Your task to perform on an android device: set default search engine in the chrome app Image 0: 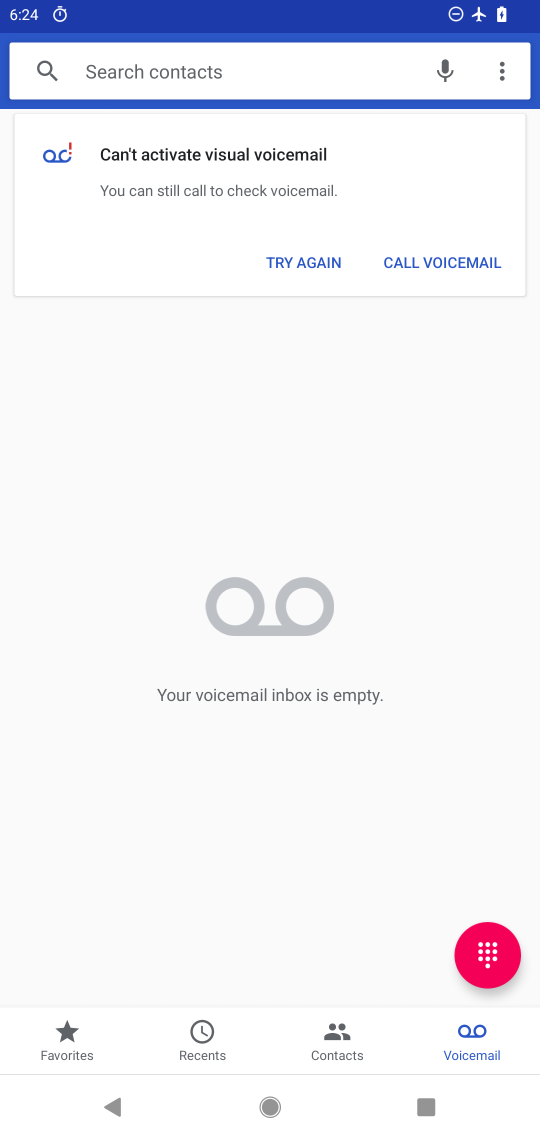
Step 0: press home button
Your task to perform on an android device: set default search engine in the chrome app Image 1: 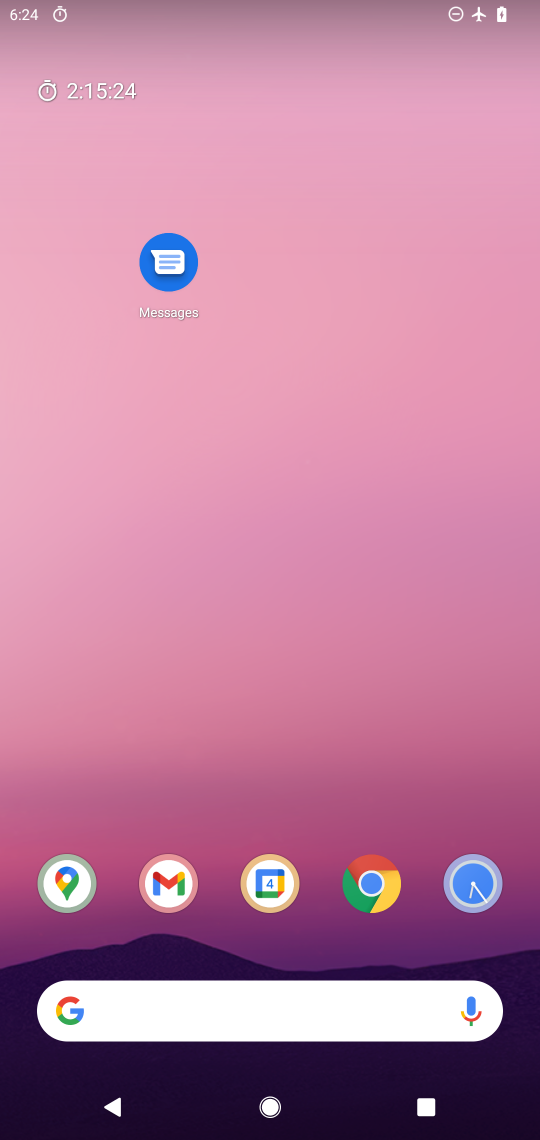
Step 1: click (364, 893)
Your task to perform on an android device: set default search engine in the chrome app Image 2: 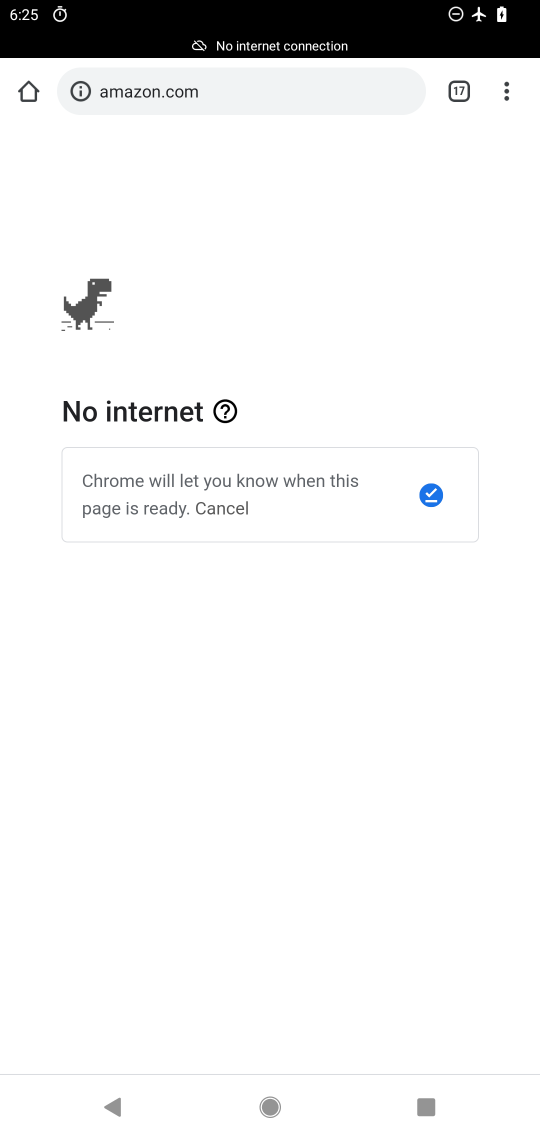
Step 2: click (505, 103)
Your task to perform on an android device: set default search engine in the chrome app Image 3: 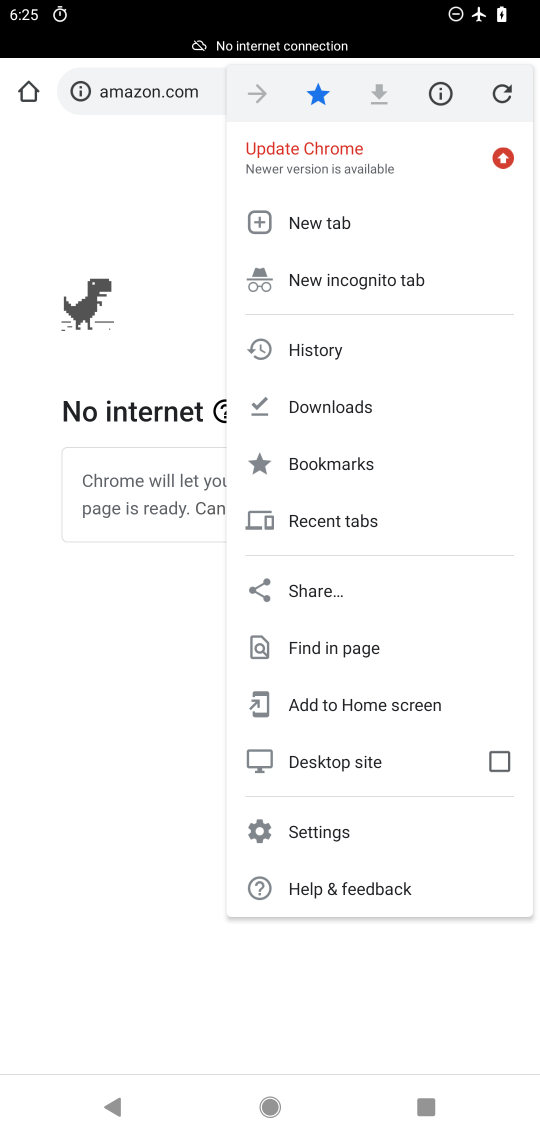
Step 3: click (315, 827)
Your task to perform on an android device: set default search engine in the chrome app Image 4: 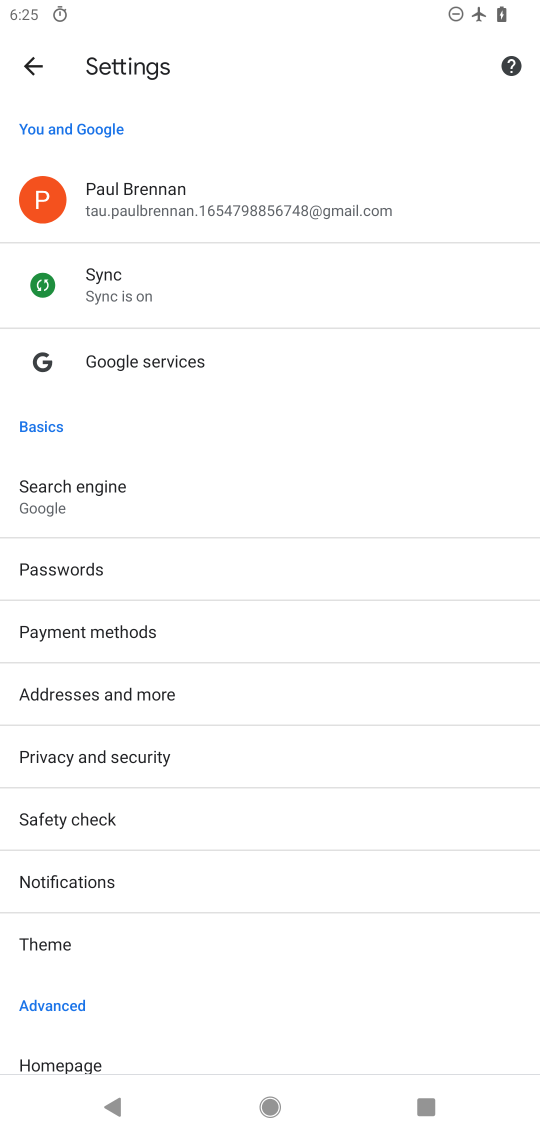
Step 4: click (52, 506)
Your task to perform on an android device: set default search engine in the chrome app Image 5: 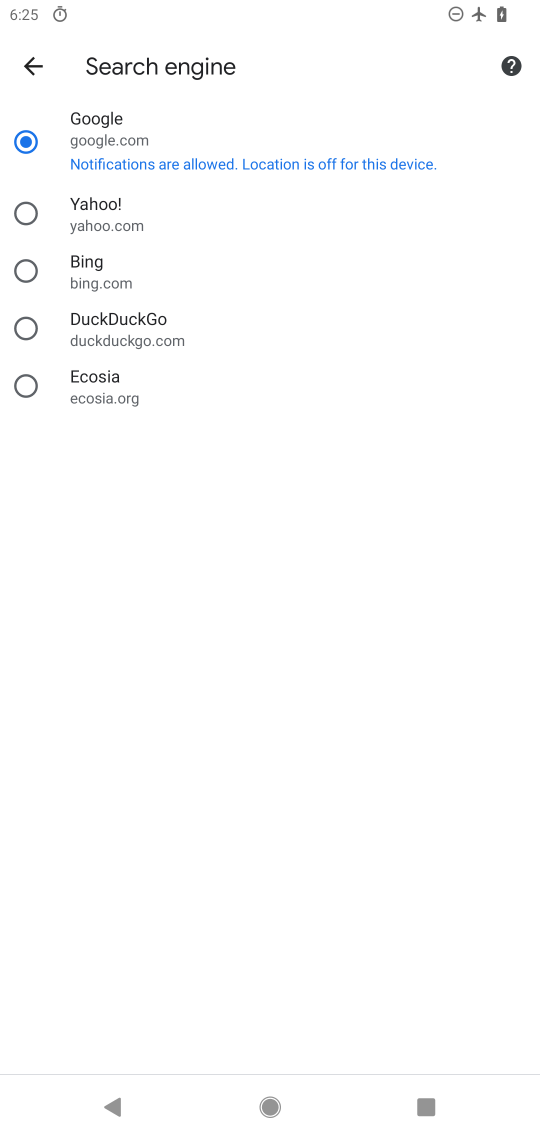
Step 5: click (25, 211)
Your task to perform on an android device: set default search engine in the chrome app Image 6: 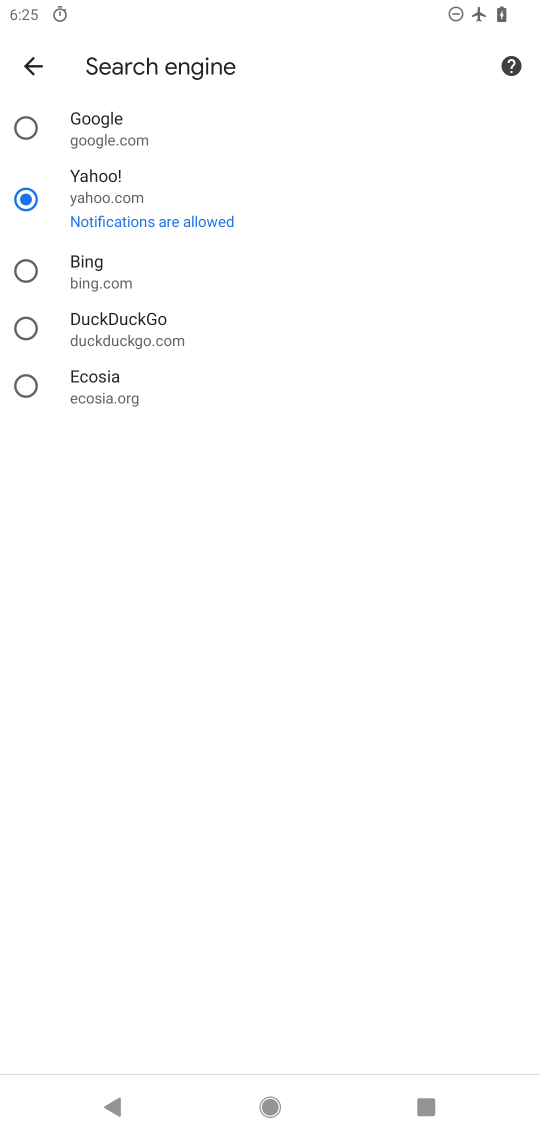
Step 6: task complete